Your task to perform on an android device: search for starred emails in the gmail app Image 0: 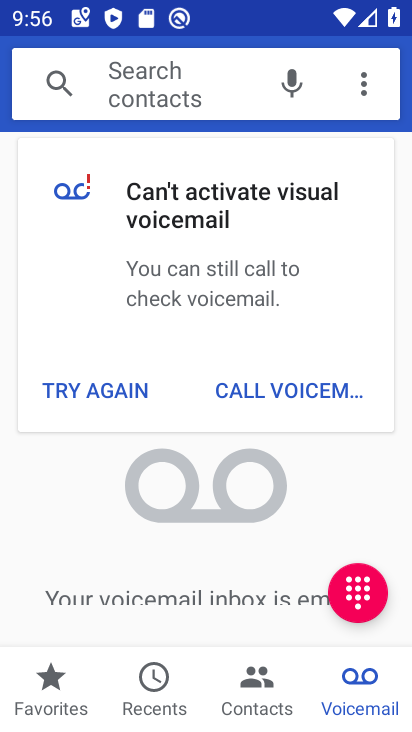
Step 0: press home button
Your task to perform on an android device: search for starred emails in the gmail app Image 1: 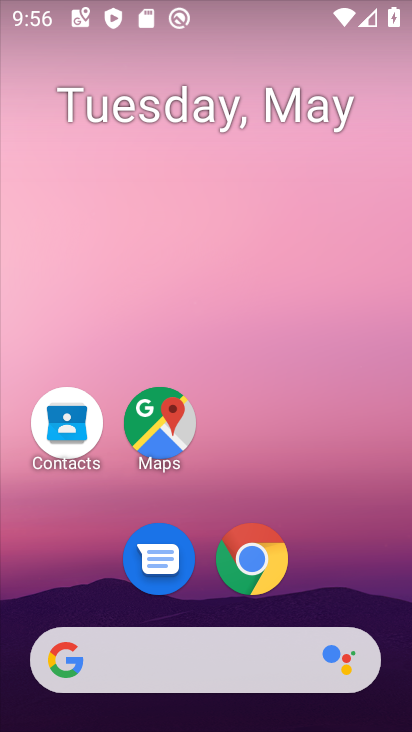
Step 1: drag from (365, 594) to (330, 4)
Your task to perform on an android device: search for starred emails in the gmail app Image 2: 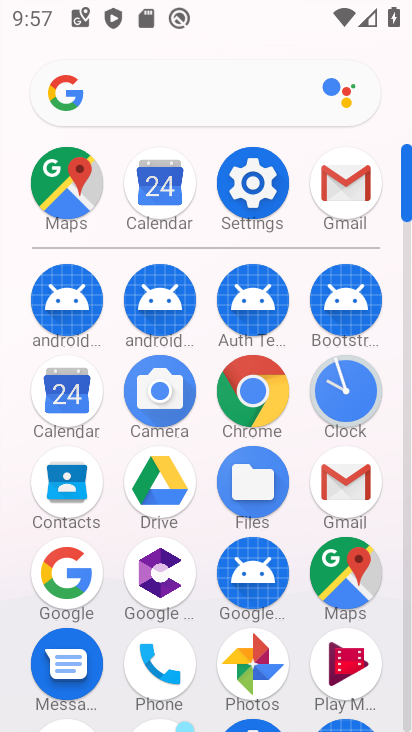
Step 2: click (364, 175)
Your task to perform on an android device: search for starred emails in the gmail app Image 3: 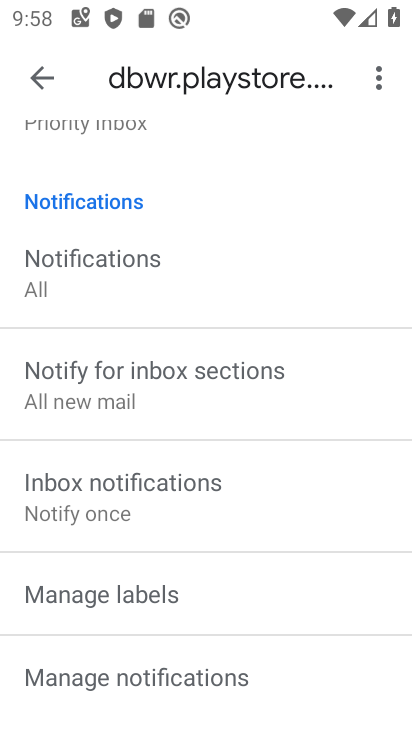
Step 3: task complete